Your task to perform on an android device: move a message to another label in the gmail app Image 0: 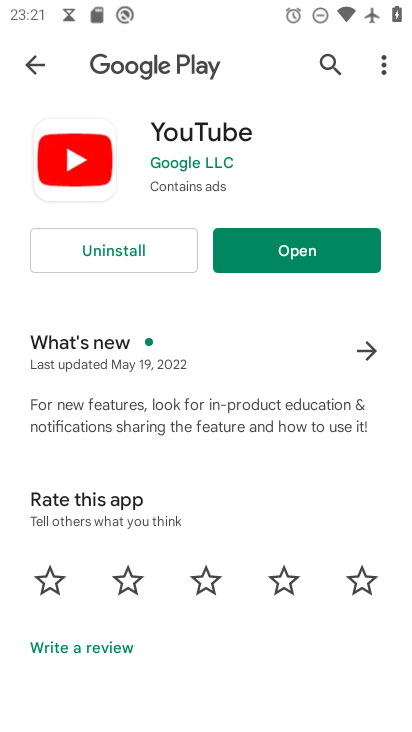
Step 0: press home button
Your task to perform on an android device: move a message to another label in the gmail app Image 1: 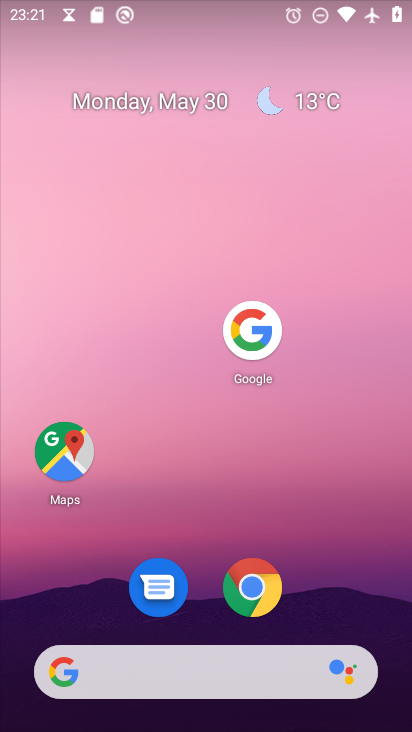
Step 1: drag from (203, 664) to (277, 174)
Your task to perform on an android device: move a message to another label in the gmail app Image 2: 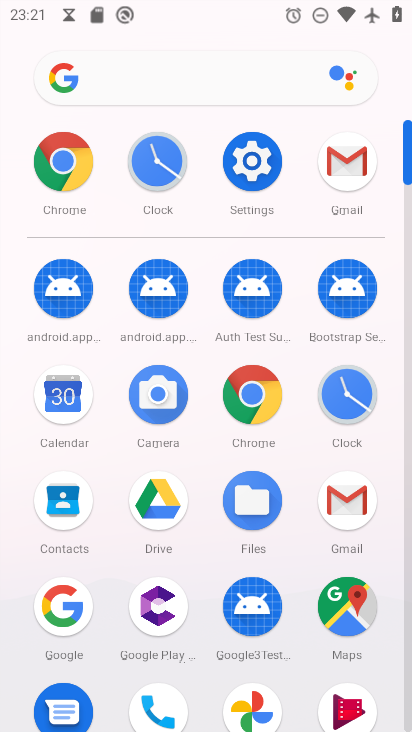
Step 2: click (347, 174)
Your task to perform on an android device: move a message to another label in the gmail app Image 3: 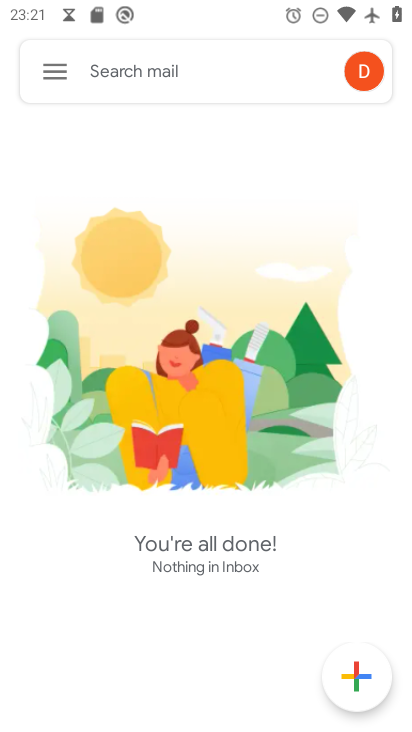
Step 3: task complete